Your task to perform on an android device: open chrome privacy settings Image 0: 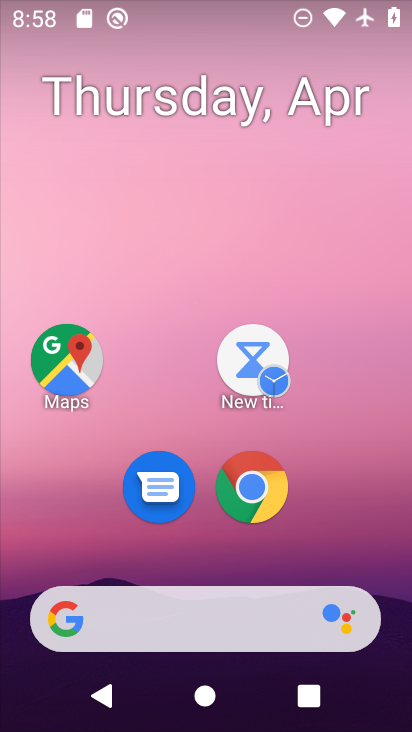
Step 0: click (263, 483)
Your task to perform on an android device: open chrome privacy settings Image 1: 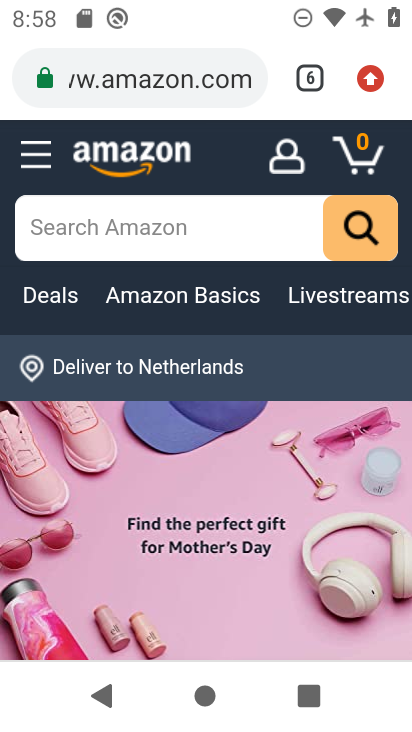
Step 1: drag from (368, 74) to (127, 553)
Your task to perform on an android device: open chrome privacy settings Image 2: 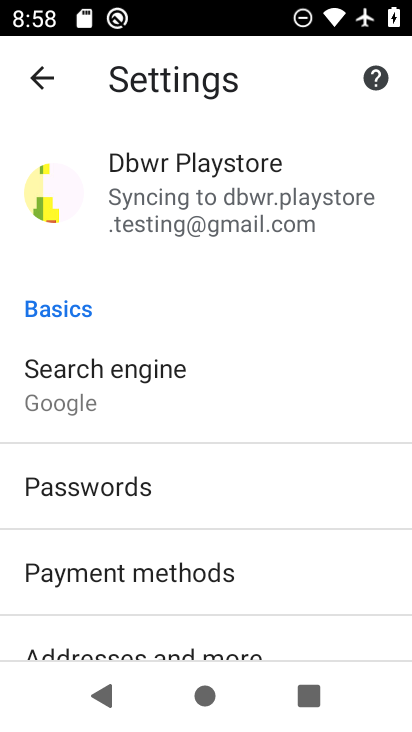
Step 2: drag from (323, 625) to (279, 283)
Your task to perform on an android device: open chrome privacy settings Image 3: 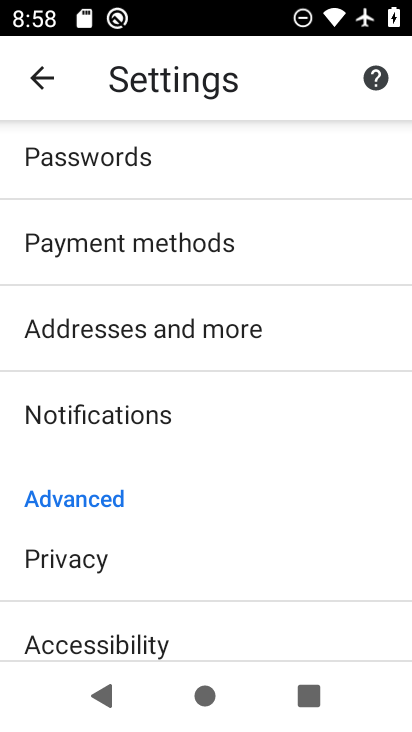
Step 3: click (92, 555)
Your task to perform on an android device: open chrome privacy settings Image 4: 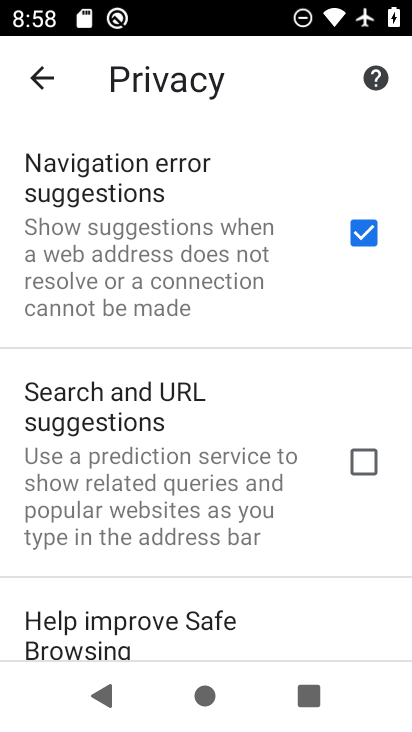
Step 4: task complete